Your task to perform on an android device: Go to internet settings Image 0: 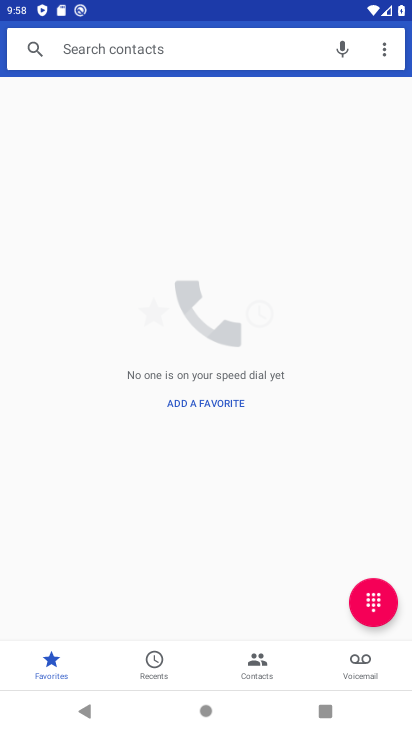
Step 0: press home button
Your task to perform on an android device: Go to internet settings Image 1: 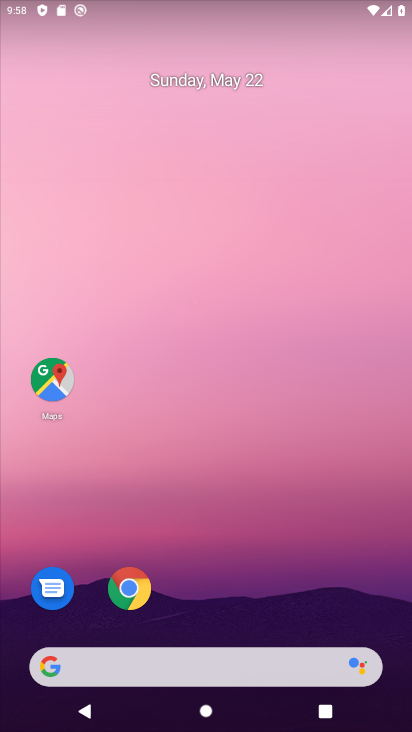
Step 1: drag from (229, 725) to (203, 19)
Your task to perform on an android device: Go to internet settings Image 2: 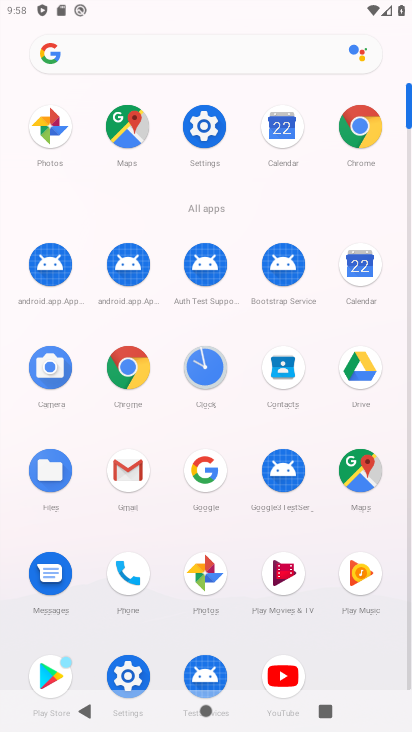
Step 2: click (122, 678)
Your task to perform on an android device: Go to internet settings Image 3: 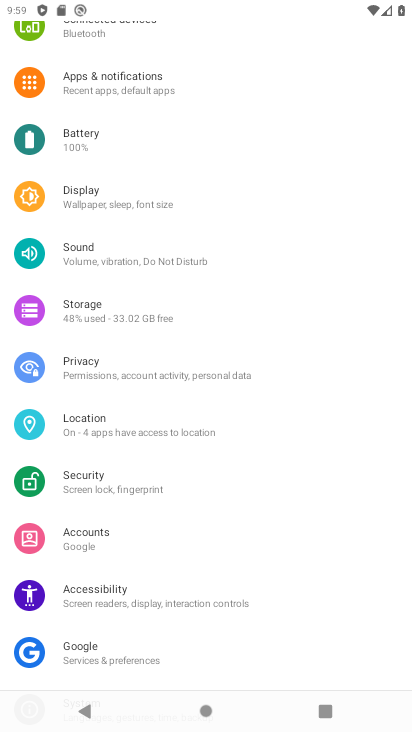
Step 3: drag from (239, 199) to (231, 612)
Your task to perform on an android device: Go to internet settings Image 4: 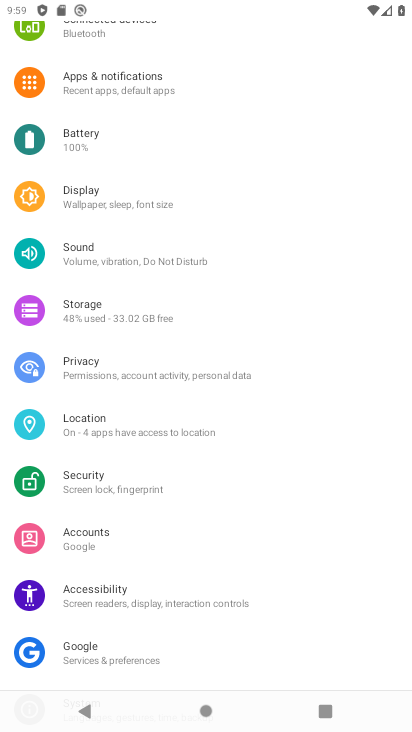
Step 4: drag from (120, 86) to (117, 484)
Your task to perform on an android device: Go to internet settings Image 5: 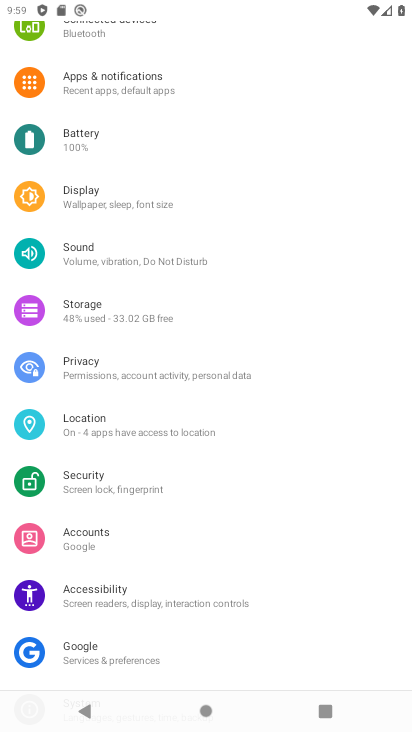
Step 5: drag from (173, 154) to (168, 605)
Your task to perform on an android device: Go to internet settings Image 6: 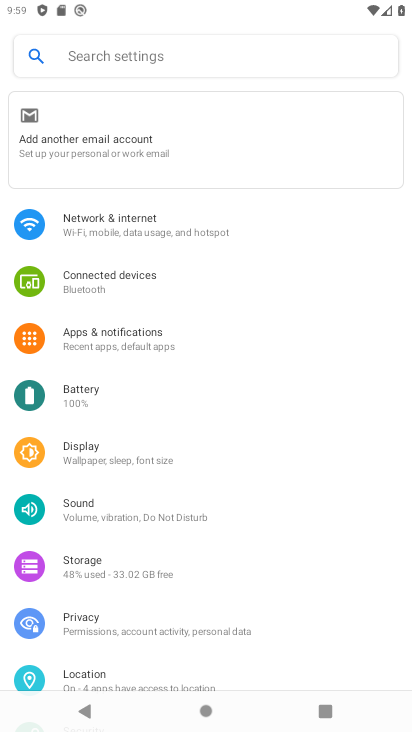
Step 6: click (128, 235)
Your task to perform on an android device: Go to internet settings Image 7: 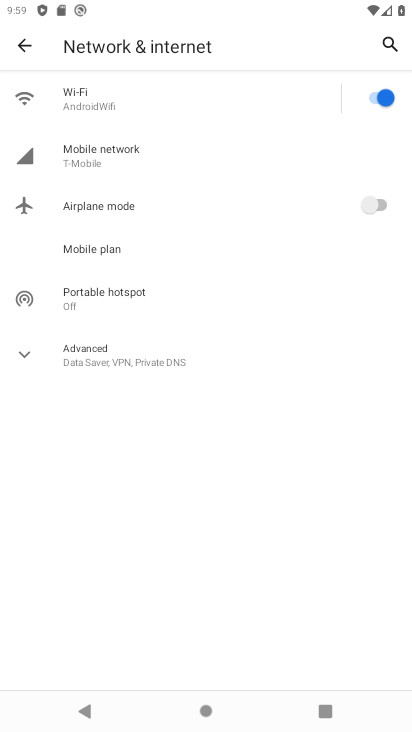
Step 7: task complete